Your task to perform on an android device: turn on the 24-hour format for clock Image 0: 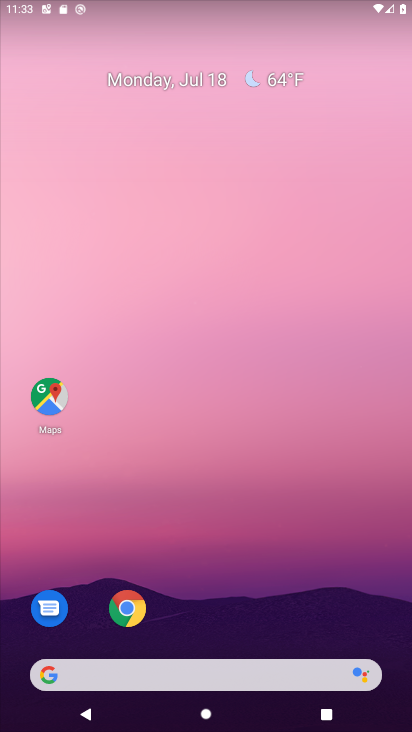
Step 0: drag from (224, 604) to (204, 37)
Your task to perform on an android device: turn on the 24-hour format for clock Image 1: 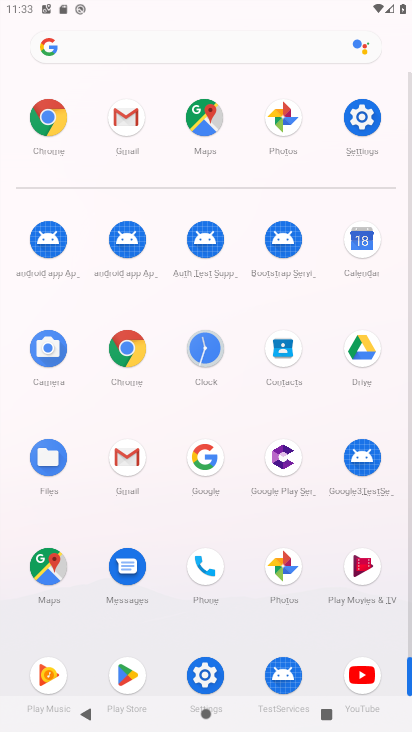
Step 1: click (215, 365)
Your task to perform on an android device: turn on the 24-hour format for clock Image 2: 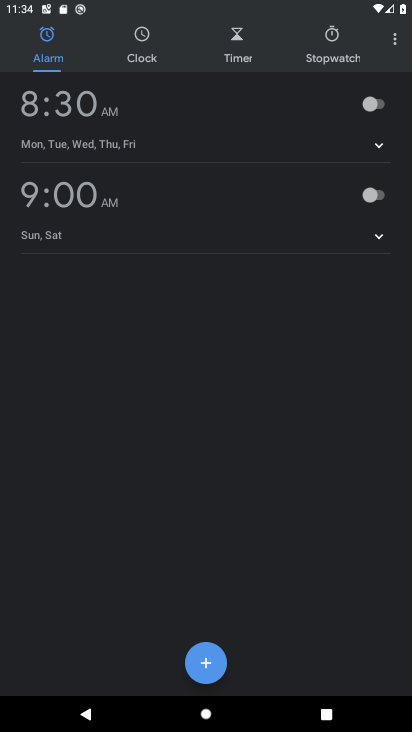
Step 2: press home button
Your task to perform on an android device: turn on the 24-hour format for clock Image 3: 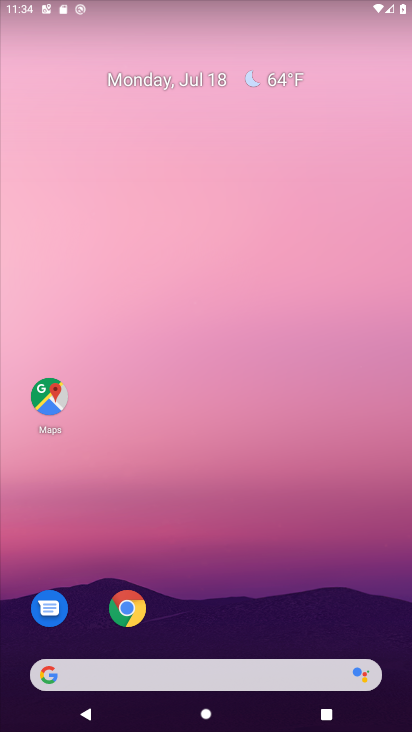
Step 3: drag from (276, 577) to (345, 29)
Your task to perform on an android device: turn on the 24-hour format for clock Image 4: 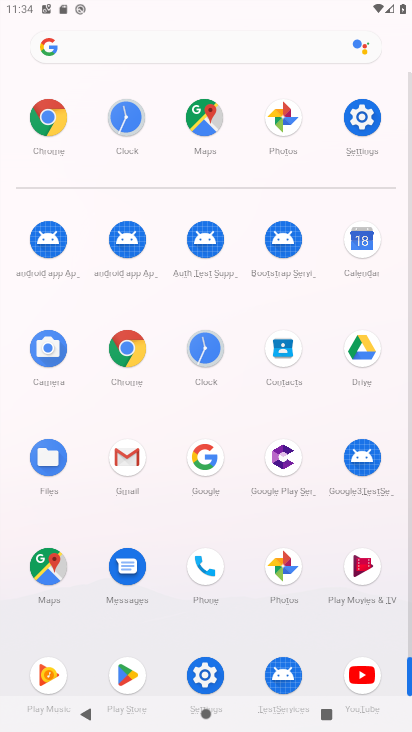
Step 4: click (213, 361)
Your task to perform on an android device: turn on the 24-hour format for clock Image 5: 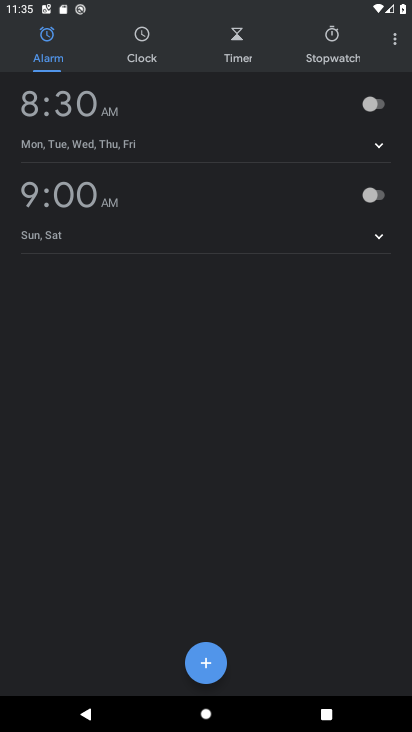
Step 5: click (393, 49)
Your task to perform on an android device: turn on the 24-hour format for clock Image 6: 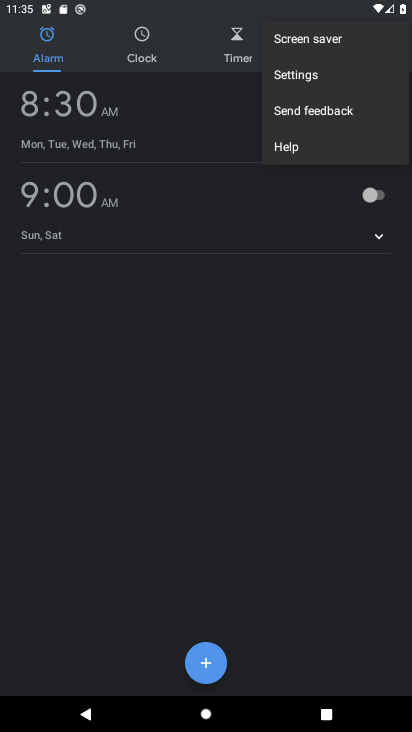
Step 6: click (309, 83)
Your task to perform on an android device: turn on the 24-hour format for clock Image 7: 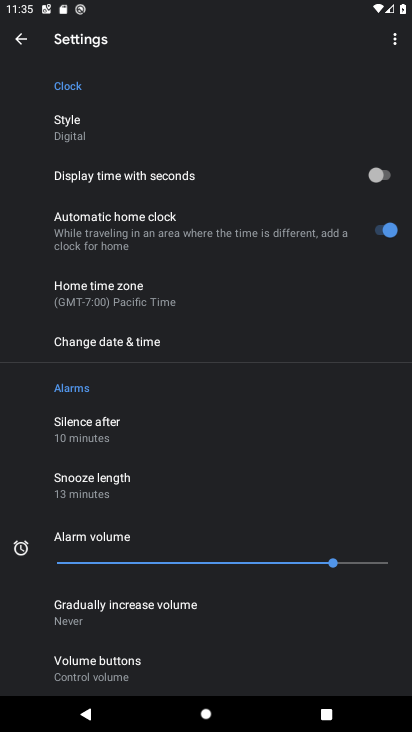
Step 7: click (389, 51)
Your task to perform on an android device: turn on the 24-hour format for clock Image 8: 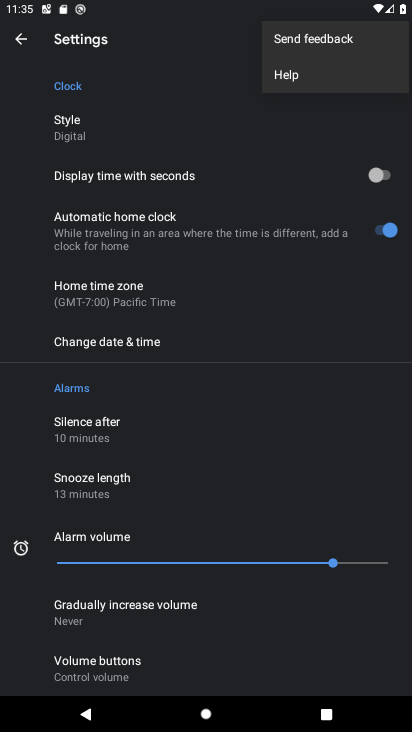
Step 8: click (141, 351)
Your task to perform on an android device: turn on the 24-hour format for clock Image 9: 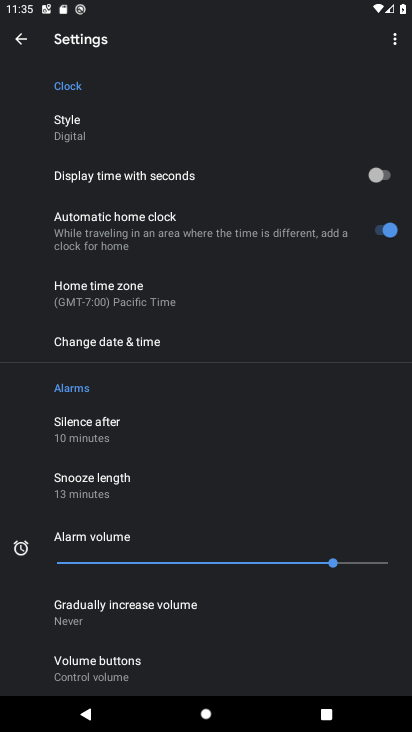
Step 9: click (139, 346)
Your task to perform on an android device: turn on the 24-hour format for clock Image 10: 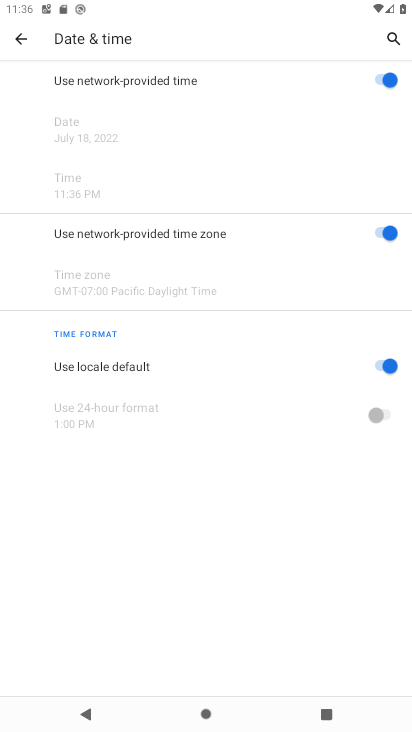
Step 10: click (382, 369)
Your task to perform on an android device: turn on the 24-hour format for clock Image 11: 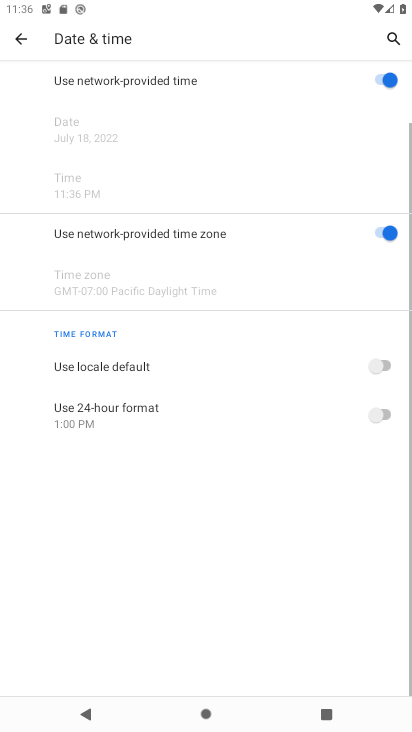
Step 11: click (365, 424)
Your task to perform on an android device: turn on the 24-hour format for clock Image 12: 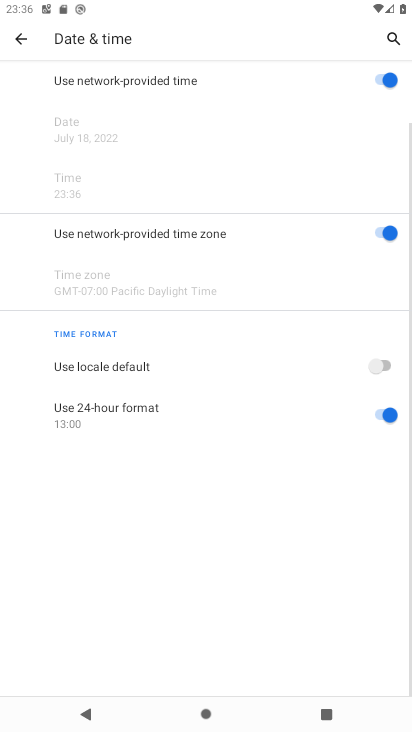
Step 12: task complete